Your task to perform on an android device: turn on showing notifications on the lock screen Image 0: 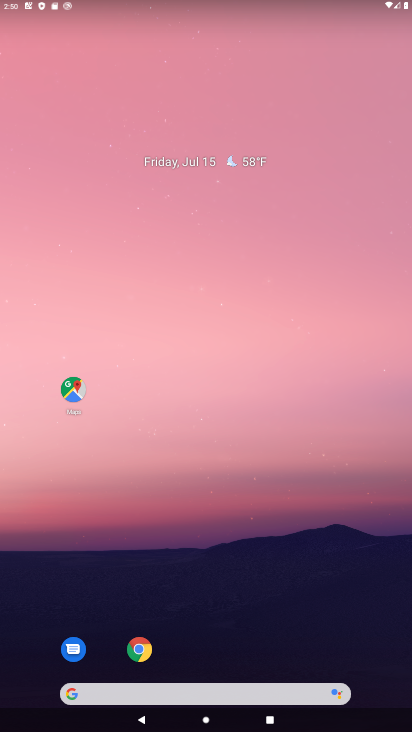
Step 0: drag from (226, 702) to (226, 188)
Your task to perform on an android device: turn on showing notifications on the lock screen Image 1: 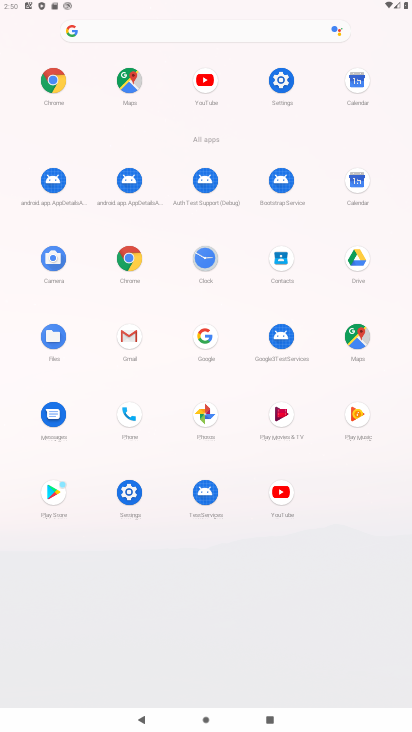
Step 1: click (132, 487)
Your task to perform on an android device: turn on showing notifications on the lock screen Image 2: 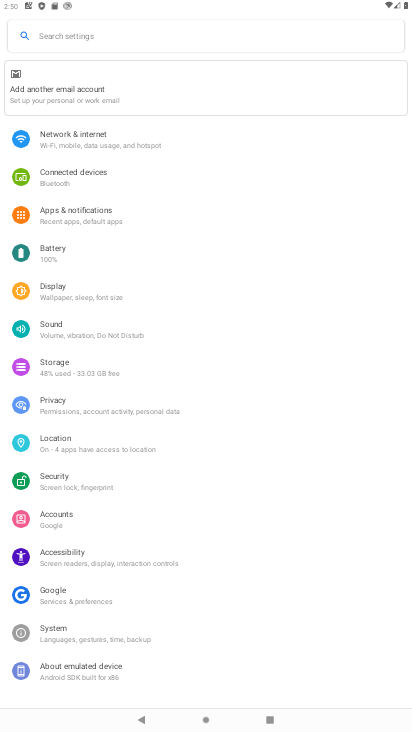
Step 2: click (91, 203)
Your task to perform on an android device: turn on showing notifications on the lock screen Image 3: 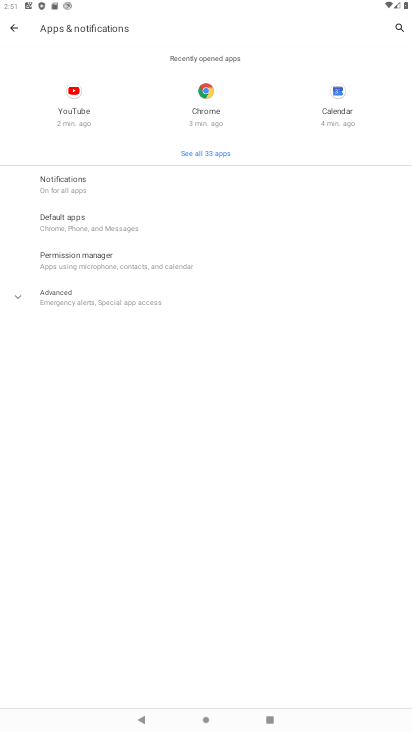
Step 3: click (65, 184)
Your task to perform on an android device: turn on showing notifications on the lock screen Image 4: 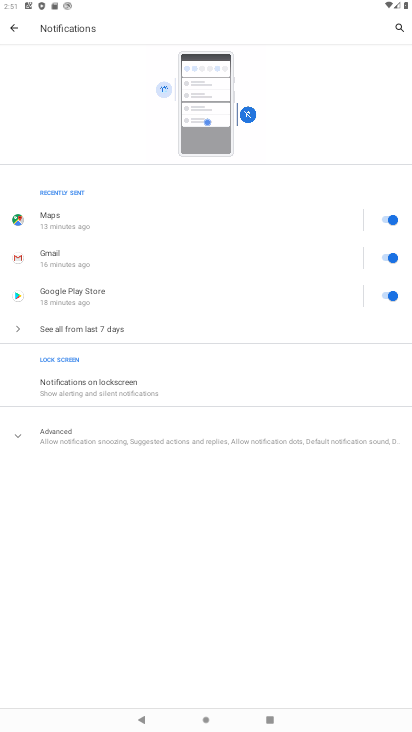
Step 4: click (89, 387)
Your task to perform on an android device: turn on showing notifications on the lock screen Image 5: 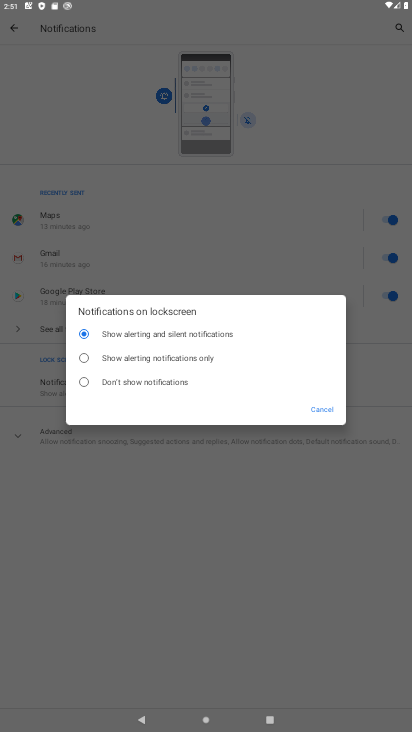
Step 5: task complete